Your task to perform on an android device: star an email in the gmail app Image 0: 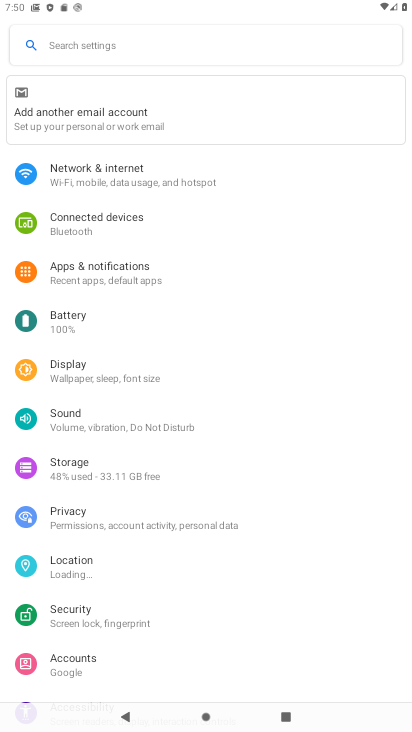
Step 0: press home button
Your task to perform on an android device: star an email in the gmail app Image 1: 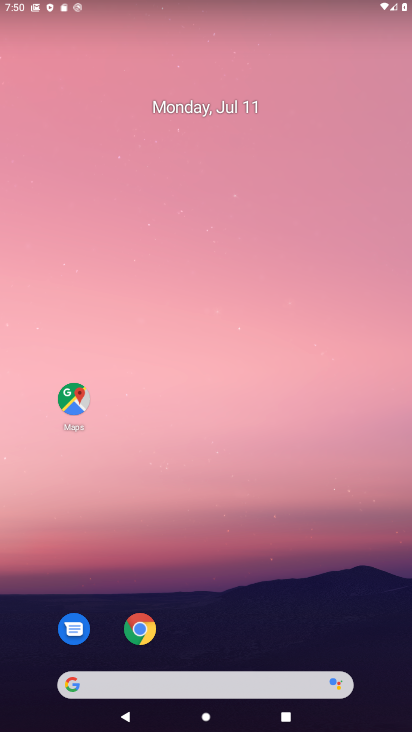
Step 1: drag from (203, 630) to (244, 121)
Your task to perform on an android device: star an email in the gmail app Image 2: 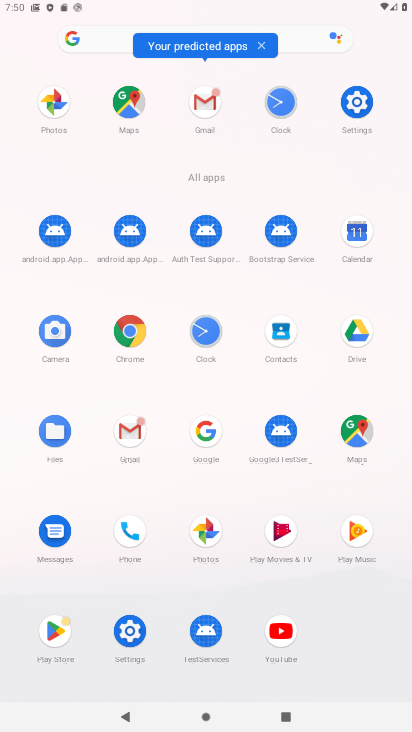
Step 2: click (206, 97)
Your task to perform on an android device: star an email in the gmail app Image 3: 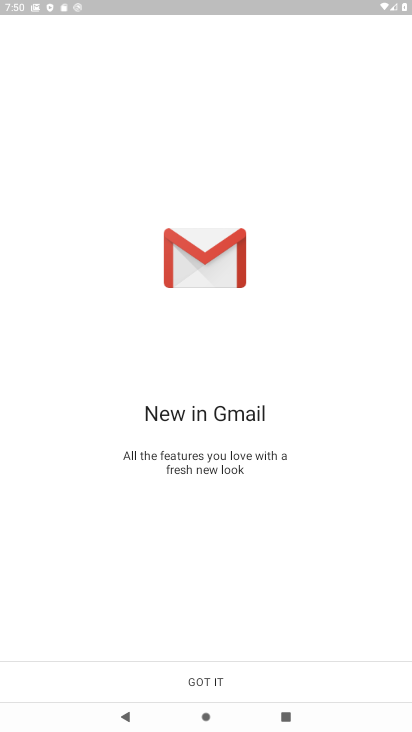
Step 3: click (201, 672)
Your task to perform on an android device: star an email in the gmail app Image 4: 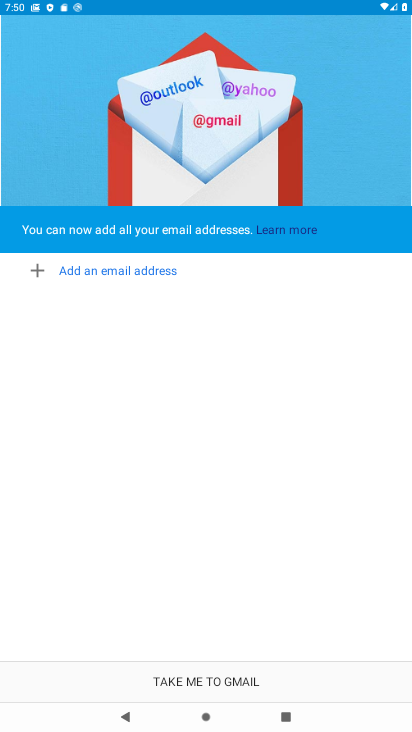
Step 4: click (202, 678)
Your task to perform on an android device: star an email in the gmail app Image 5: 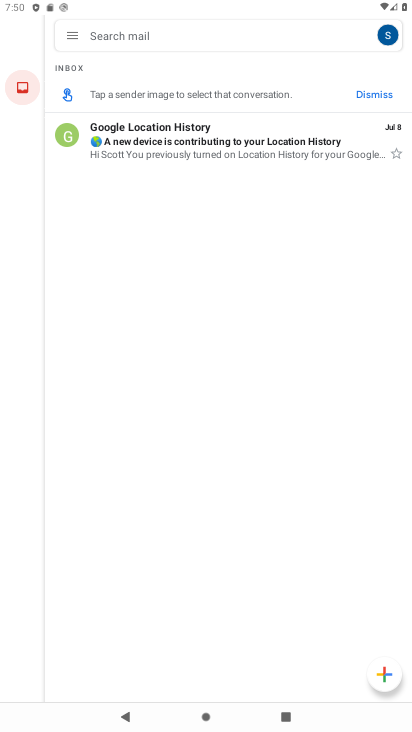
Step 5: click (396, 157)
Your task to perform on an android device: star an email in the gmail app Image 6: 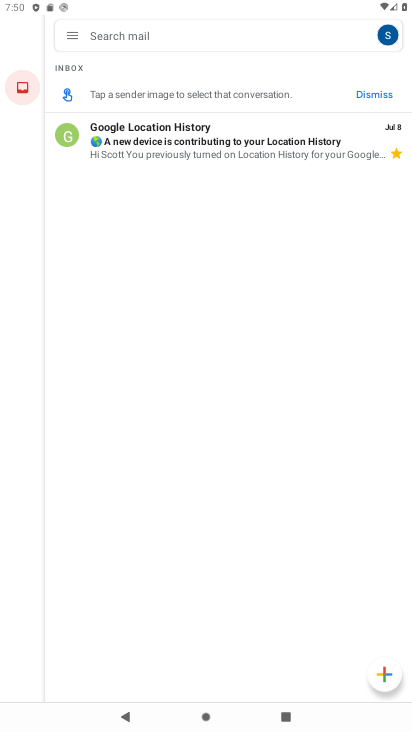
Step 6: task complete